Your task to perform on an android device: Search for Mexican restaurants on Maps Image 0: 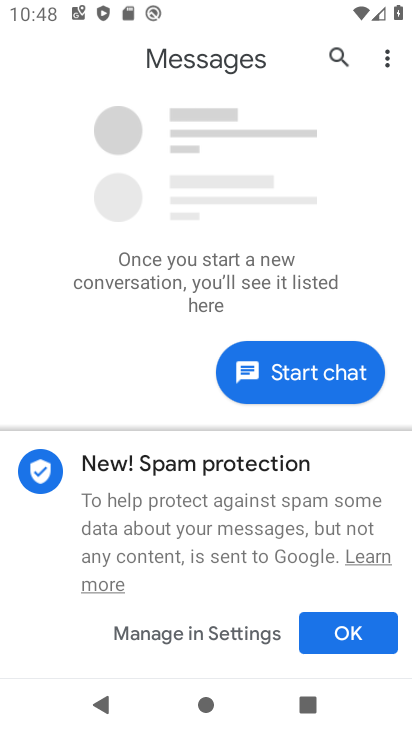
Step 0: press home button
Your task to perform on an android device: Search for Mexican restaurants on Maps Image 1: 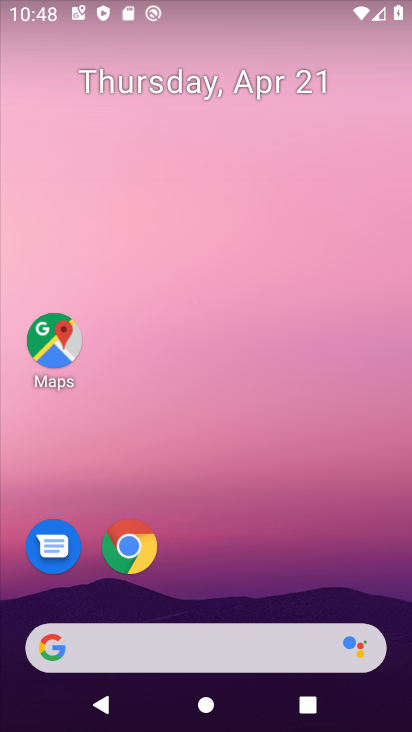
Step 1: drag from (219, 587) to (234, 93)
Your task to perform on an android device: Search for Mexican restaurants on Maps Image 2: 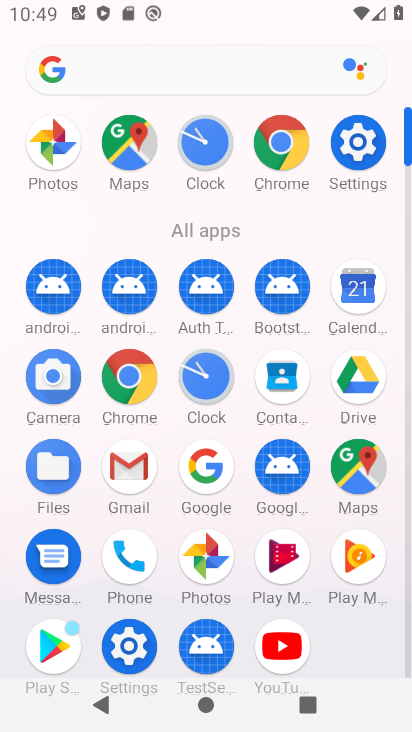
Step 2: click (374, 455)
Your task to perform on an android device: Search for Mexican restaurants on Maps Image 3: 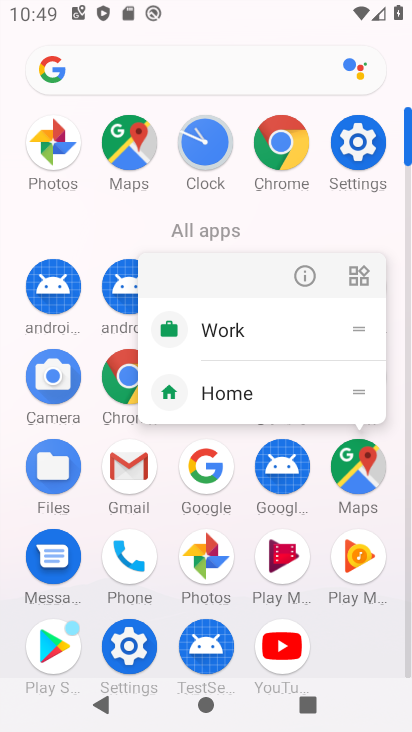
Step 3: click (354, 487)
Your task to perform on an android device: Search for Mexican restaurants on Maps Image 4: 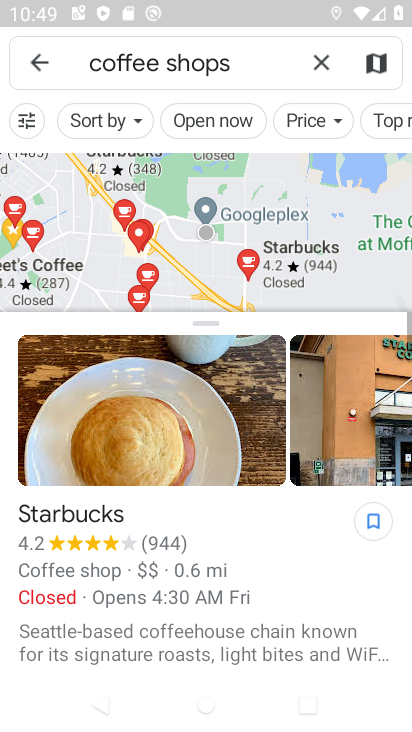
Step 4: click (232, 71)
Your task to perform on an android device: Search for Mexican restaurants on Maps Image 5: 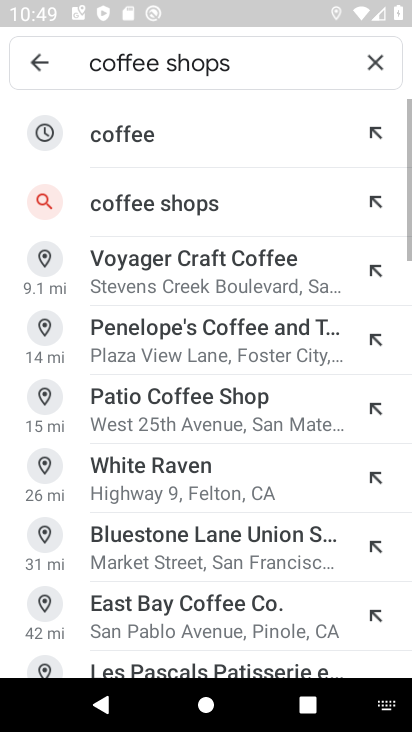
Step 5: click (373, 57)
Your task to perform on an android device: Search for Mexican restaurants on Maps Image 6: 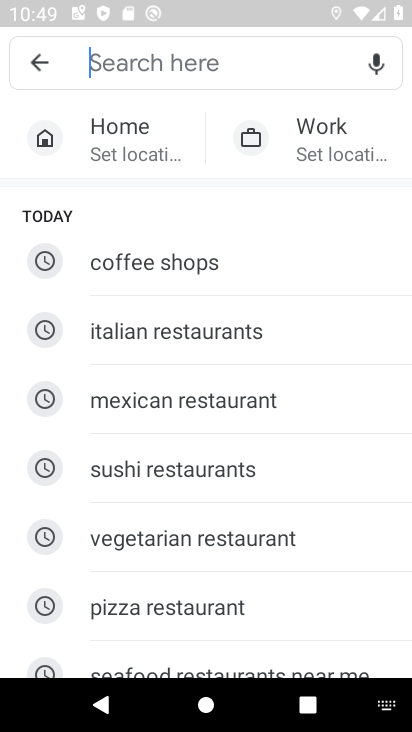
Step 6: type "Mexican restaurants"
Your task to perform on an android device: Search for Mexican restaurants on Maps Image 7: 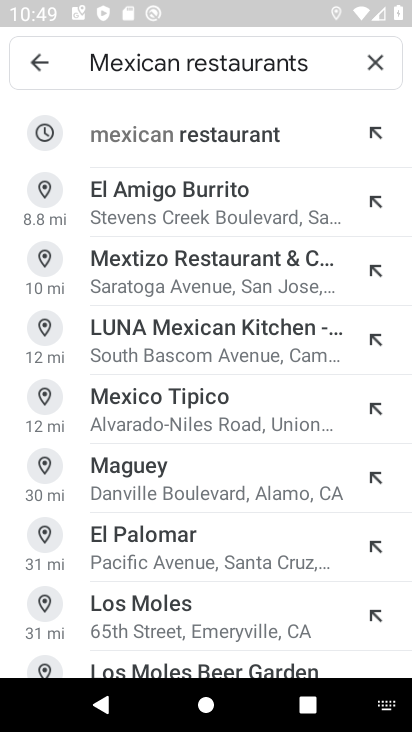
Step 7: press enter
Your task to perform on an android device: Search for Mexican restaurants on Maps Image 8: 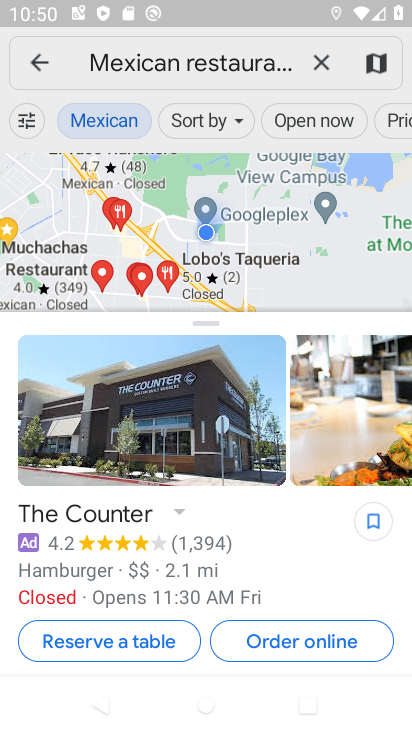
Step 8: task complete